Your task to perform on an android device: change the clock style Image 0: 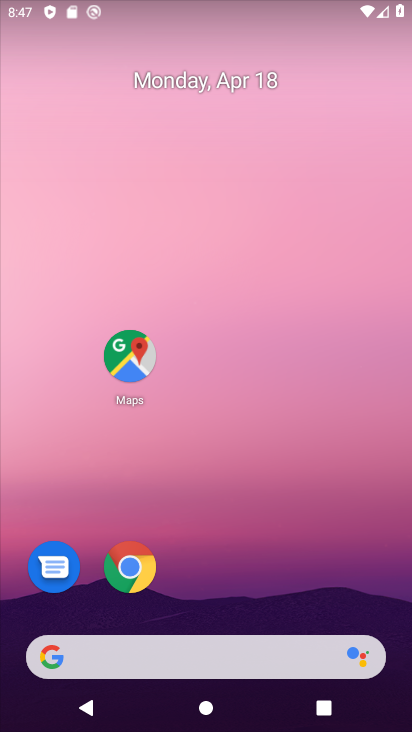
Step 0: drag from (344, 682) to (283, 171)
Your task to perform on an android device: change the clock style Image 1: 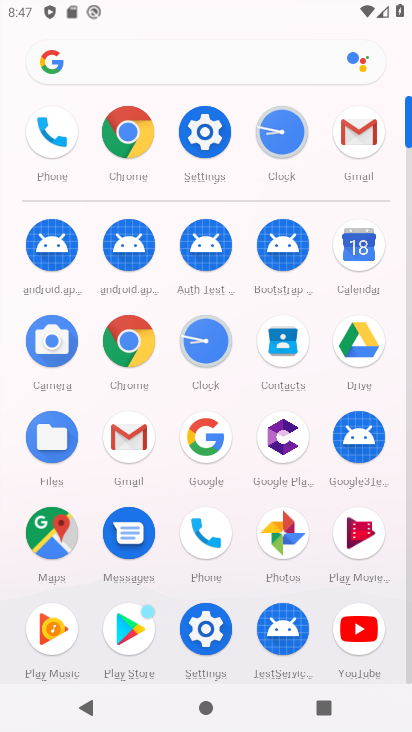
Step 1: click (207, 342)
Your task to perform on an android device: change the clock style Image 2: 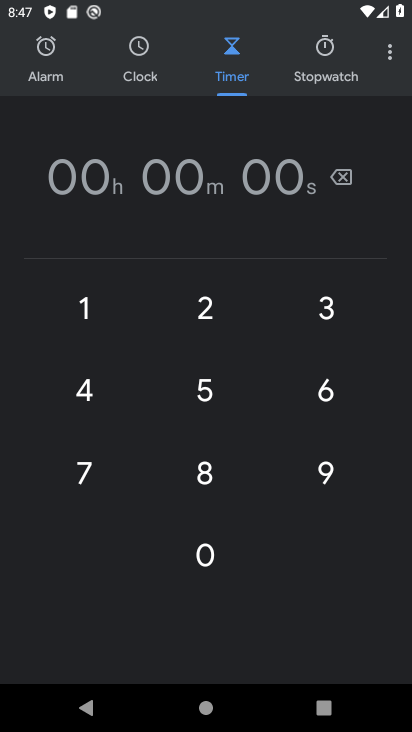
Step 2: click (393, 58)
Your task to perform on an android device: change the clock style Image 3: 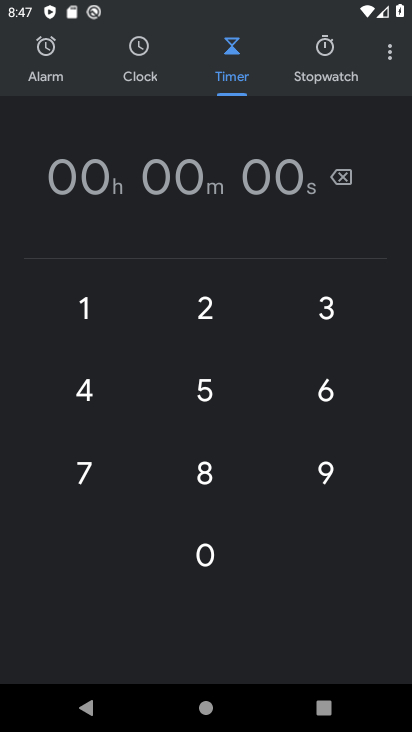
Step 3: click (384, 50)
Your task to perform on an android device: change the clock style Image 4: 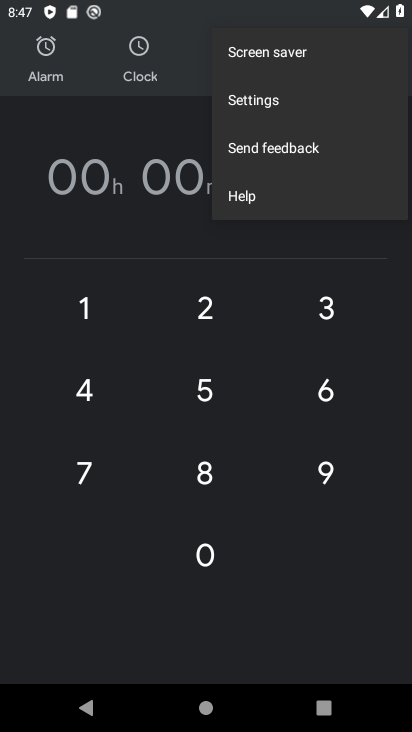
Step 4: click (262, 106)
Your task to perform on an android device: change the clock style Image 5: 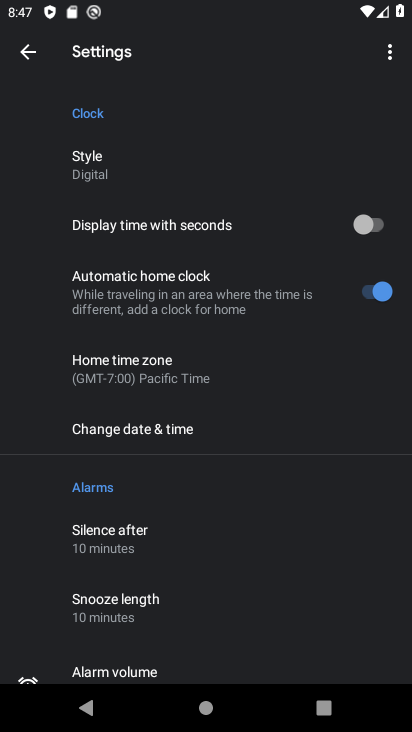
Step 5: click (141, 185)
Your task to perform on an android device: change the clock style Image 6: 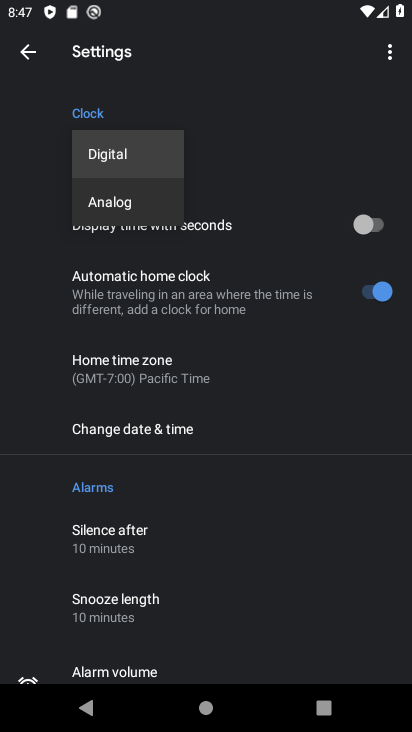
Step 6: click (140, 201)
Your task to perform on an android device: change the clock style Image 7: 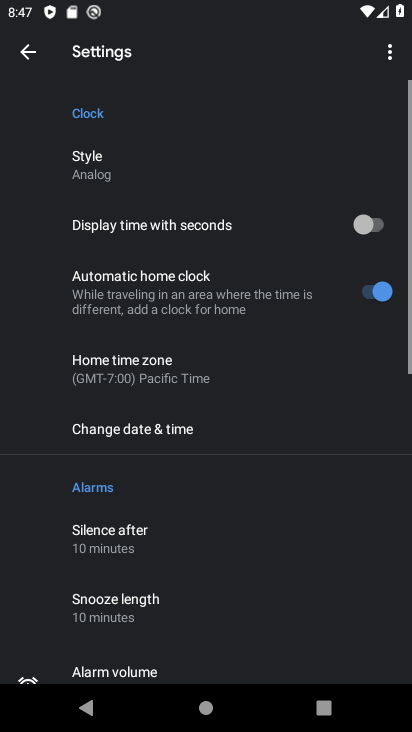
Step 7: task complete